Your task to perform on an android device: allow notifications from all sites in the chrome app Image 0: 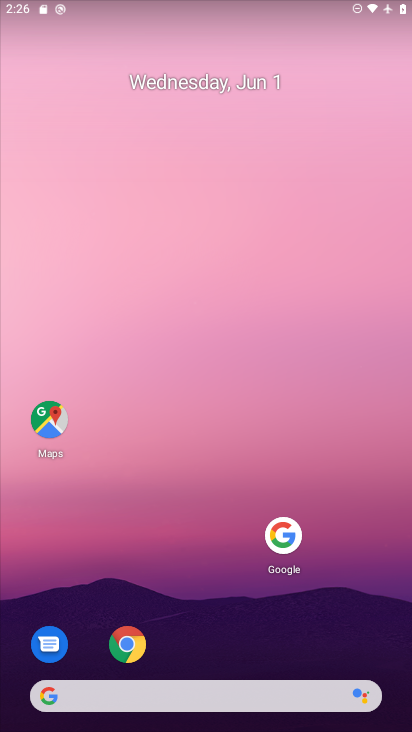
Step 0: press home button
Your task to perform on an android device: allow notifications from all sites in the chrome app Image 1: 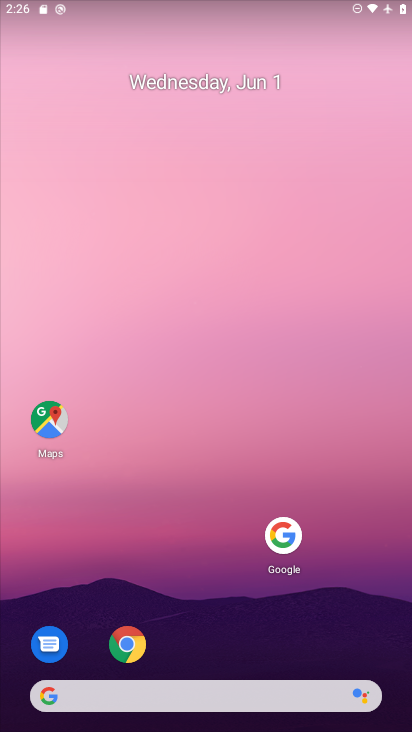
Step 1: click (132, 647)
Your task to perform on an android device: allow notifications from all sites in the chrome app Image 2: 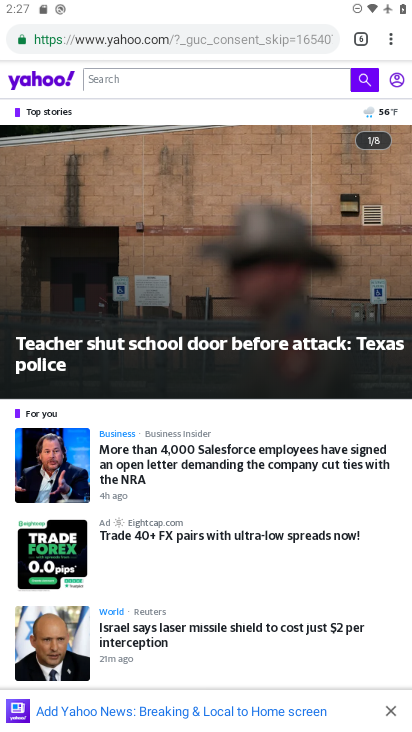
Step 2: drag from (388, 46) to (273, 509)
Your task to perform on an android device: allow notifications from all sites in the chrome app Image 3: 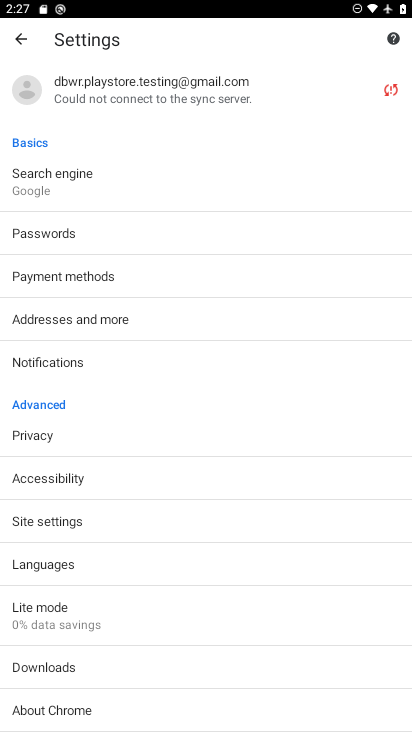
Step 3: click (67, 521)
Your task to perform on an android device: allow notifications from all sites in the chrome app Image 4: 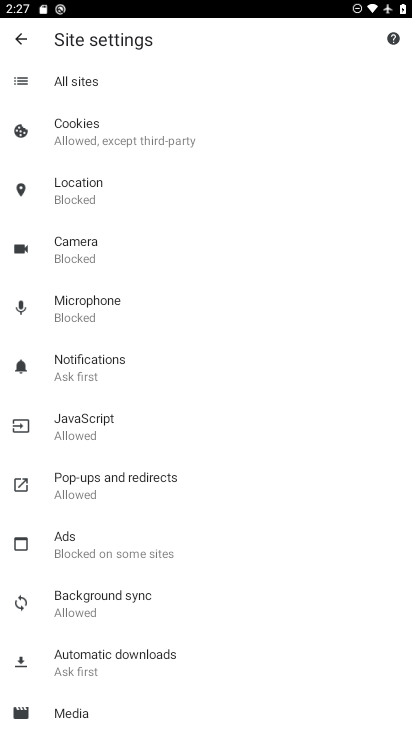
Step 4: click (96, 370)
Your task to perform on an android device: allow notifications from all sites in the chrome app Image 5: 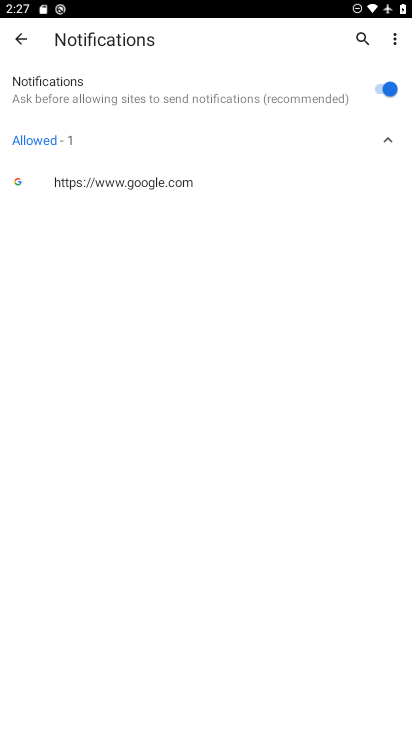
Step 5: task complete